Your task to perform on an android device: Open the map Image 0: 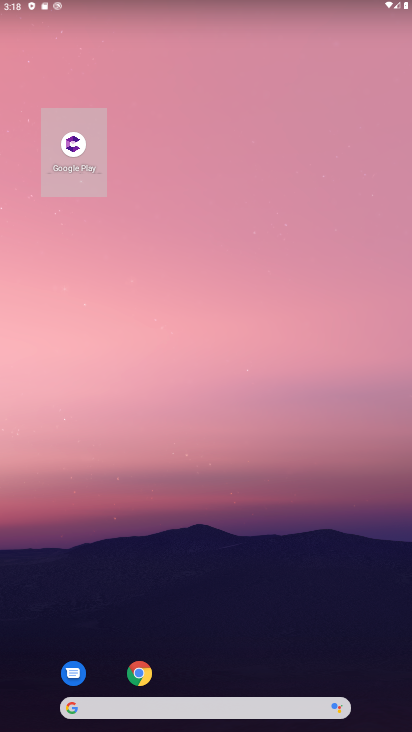
Step 0: press home button
Your task to perform on an android device: Open the map Image 1: 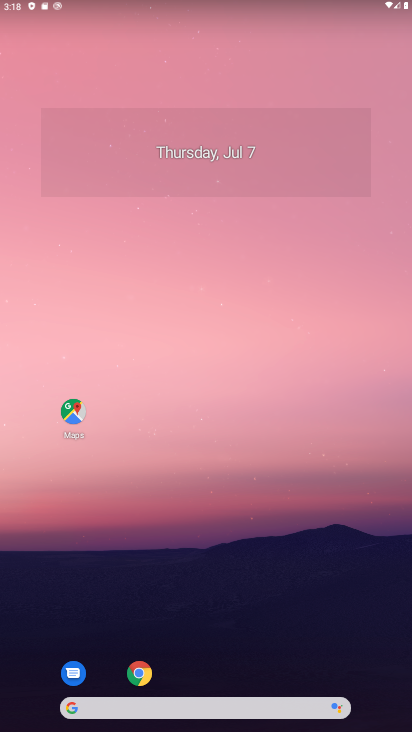
Step 1: click (61, 409)
Your task to perform on an android device: Open the map Image 2: 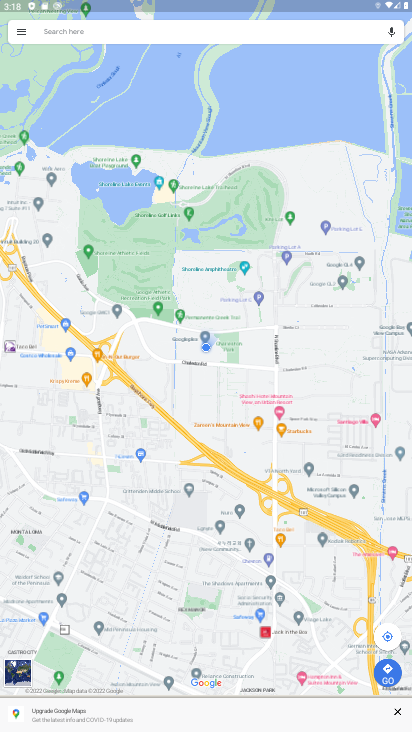
Step 2: task complete